Your task to perform on an android device: Go to privacy settings Image 0: 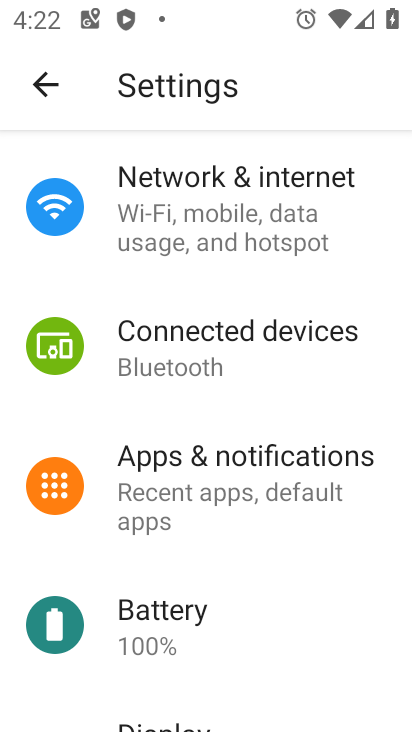
Step 0: drag from (345, 603) to (357, 510)
Your task to perform on an android device: Go to privacy settings Image 1: 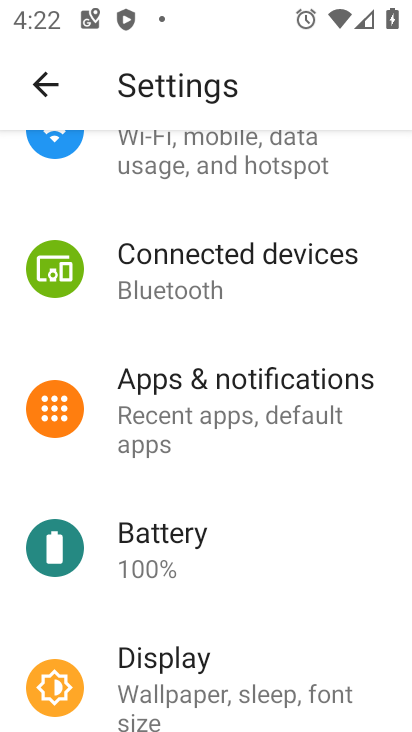
Step 1: drag from (371, 601) to (383, 496)
Your task to perform on an android device: Go to privacy settings Image 2: 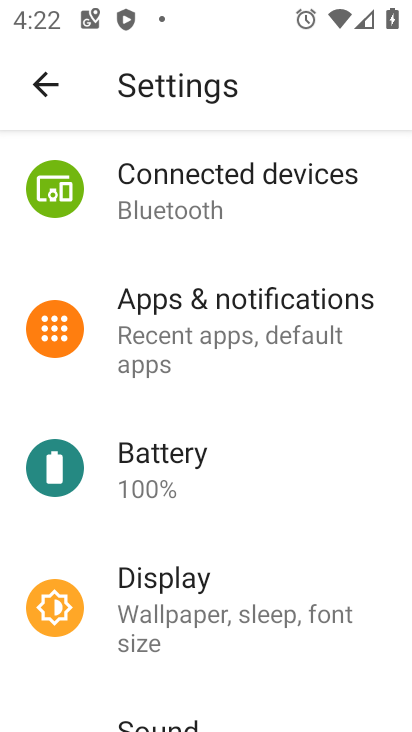
Step 2: drag from (381, 588) to (395, 486)
Your task to perform on an android device: Go to privacy settings Image 3: 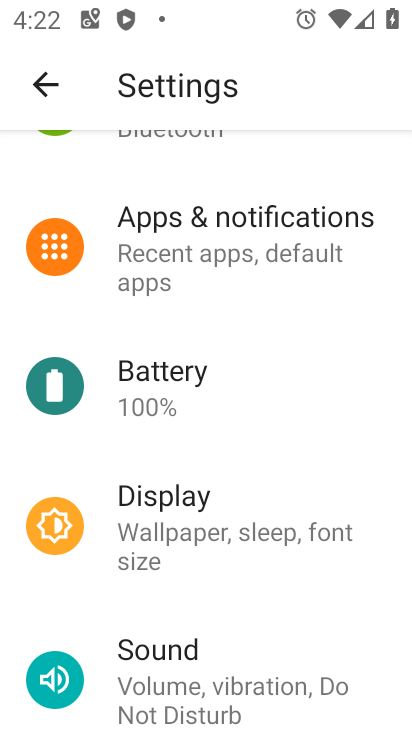
Step 3: drag from (376, 562) to (362, 449)
Your task to perform on an android device: Go to privacy settings Image 4: 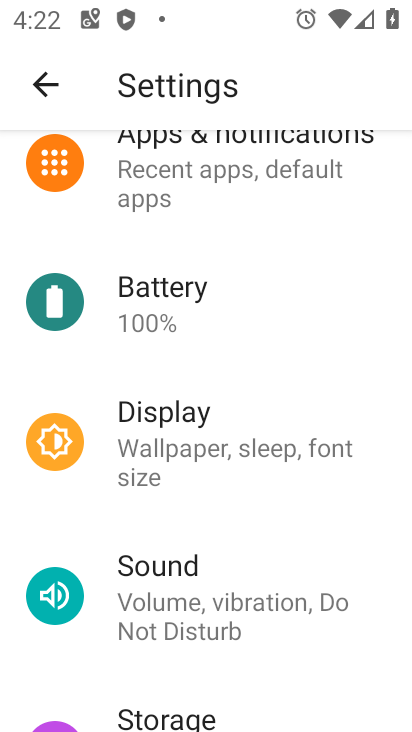
Step 4: drag from (360, 553) to (373, 419)
Your task to perform on an android device: Go to privacy settings Image 5: 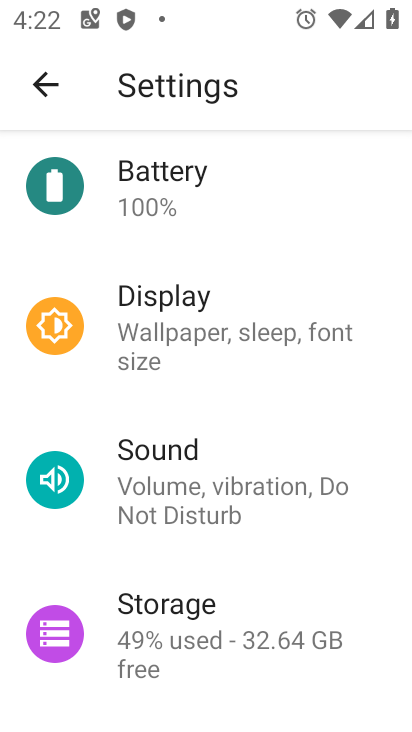
Step 5: drag from (366, 563) to (362, 455)
Your task to perform on an android device: Go to privacy settings Image 6: 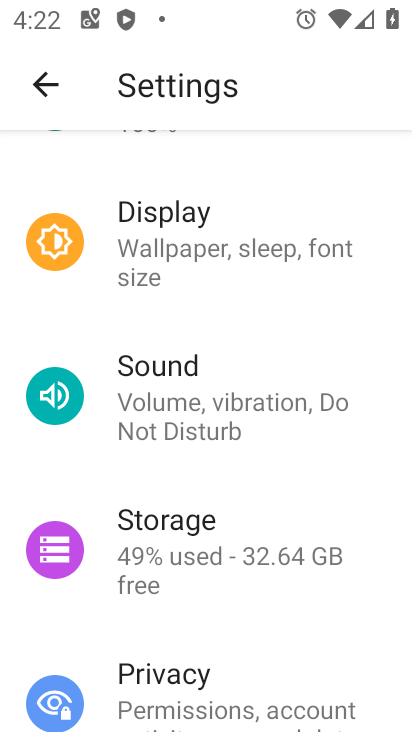
Step 6: drag from (352, 617) to (346, 486)
Your task to perform on an android device: Go to privacy settings Image 7: 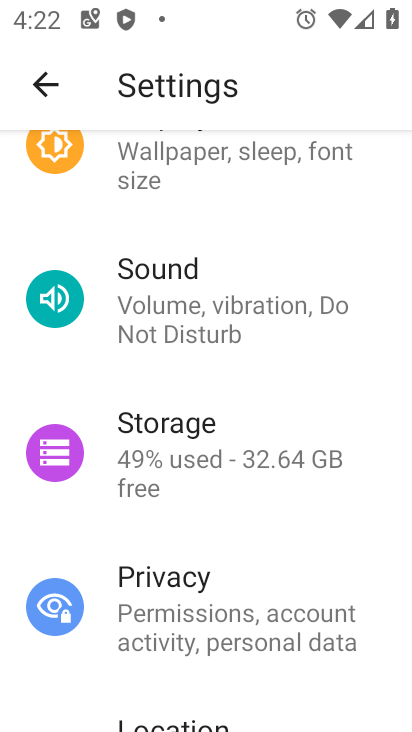
Step 7: drag from (369, 654) to (375, 538)
Your task to perform on an android device: Go to privacy settings Image 8: 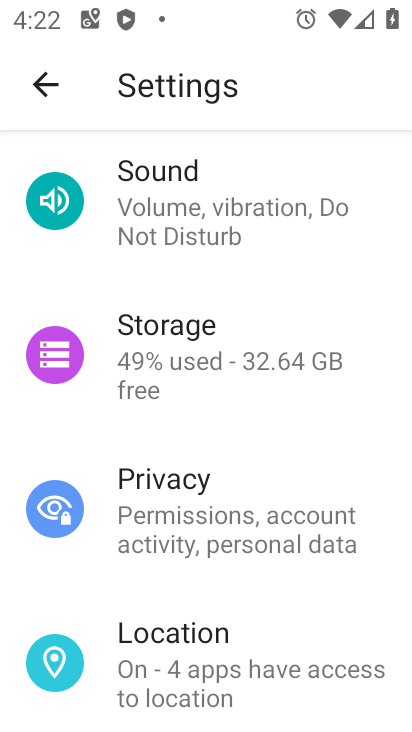
Step 8: drag from (378, 614) to (371, 436)
Your task to perform on an android device: Go to privacy settings Image 9: 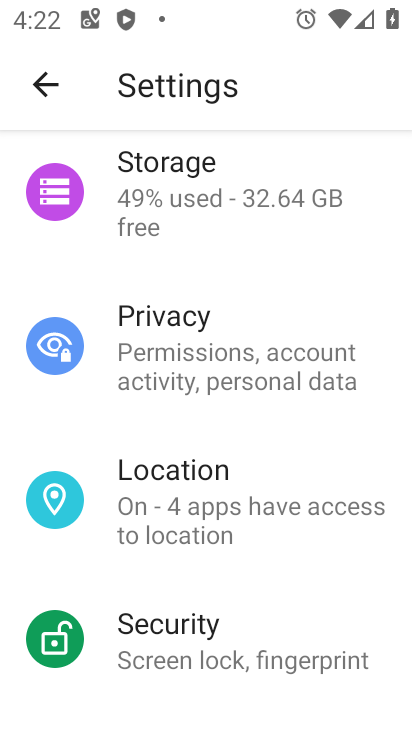
Step 9: click (339, 352)
Your task to perform on an android device: Go to privacy settings Image 10: 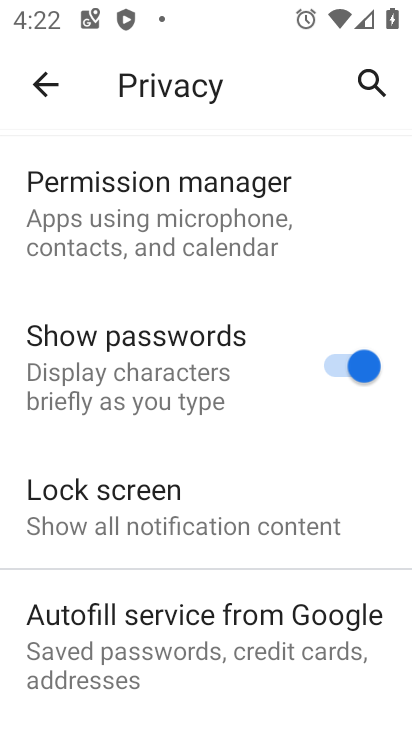
Step 10: task complete